Your task to perform on an android device: Do I have any events tomorrow? Image 0: 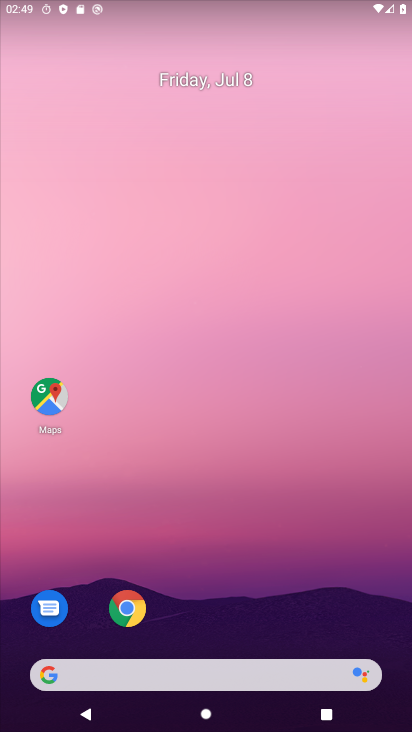
Step 0: drag from (217, 618) to (196, 116)
Your task to perform on an android device: Do I have any events tomorrow? Image 1: 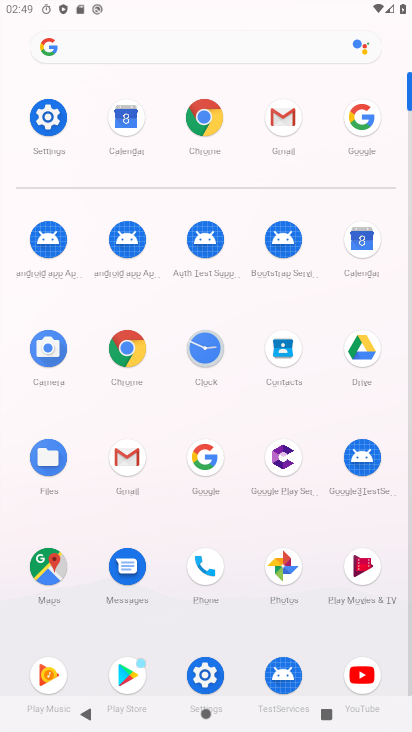
Step 1: click (362, 247)
Your task to perform on an android device: Do I have any events tomorrow? Image 2: 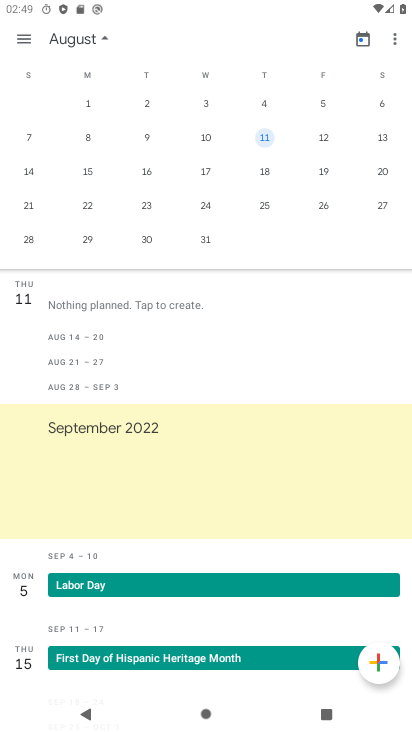
Step 2: drag from (47, 239) to (394, 206)
Your task to perform on an android device: Do I have any events tomorrow? Image 3: 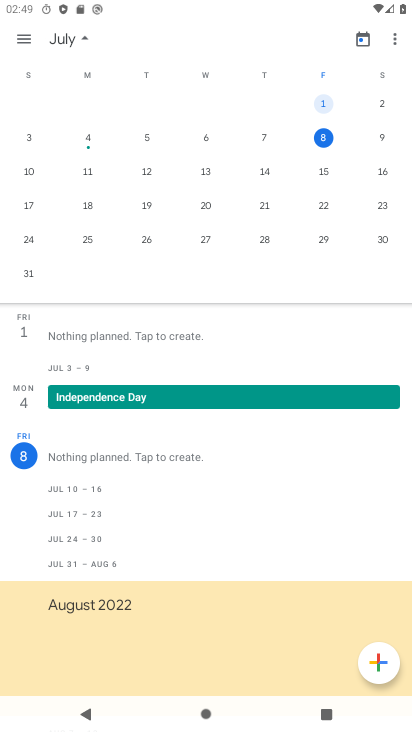
Step 3: click (387, 138)
Your task to perform on an android device: Do I have any events tomorrow? Image 4: 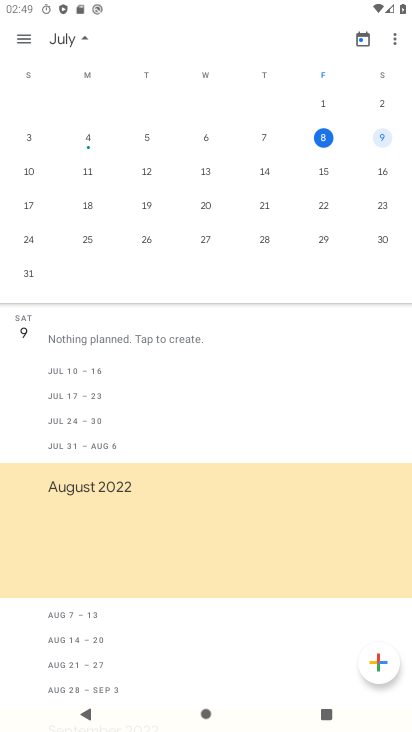
Step 4: task complete